Your task to perform on an android device: turn off priority inbox in the gmail app Image 0: 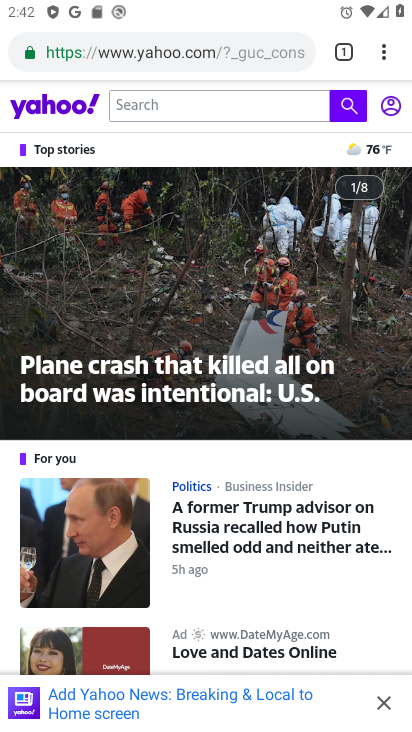
Step 0: press home button
Your task to perform on an android device: turn off priority inbox in the gmail app Image 1: 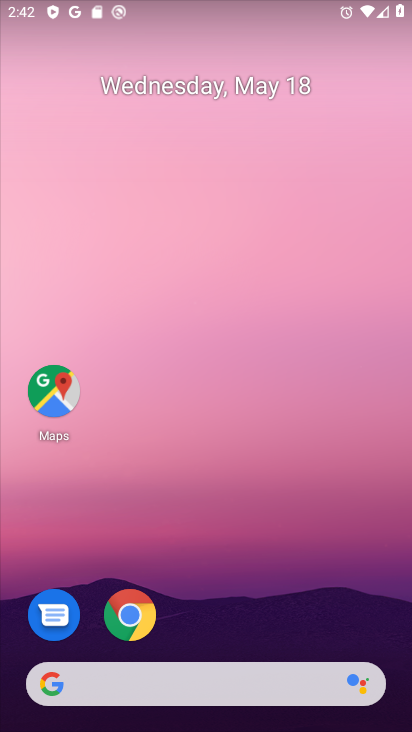
Step 1: drag from (215, 600) to (223, 286)
Your task to perform on an android device: turn off priority inbox in the gmail app Image 2: 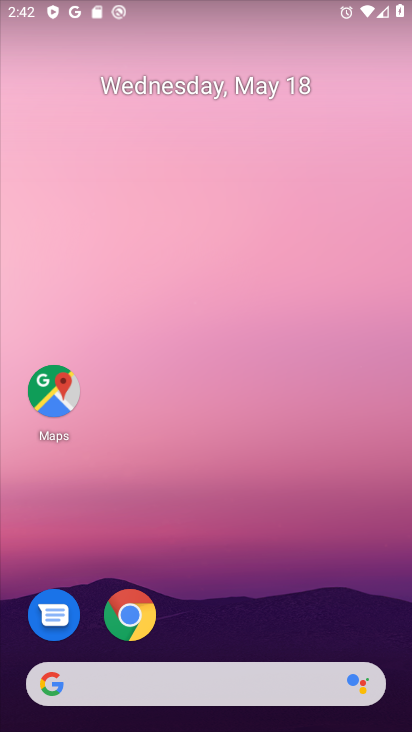
Step 2: drag from (252, 249) to (265, 209)
Your task to perform on an android device: turn off priority inbox in the gmail app Image 3: 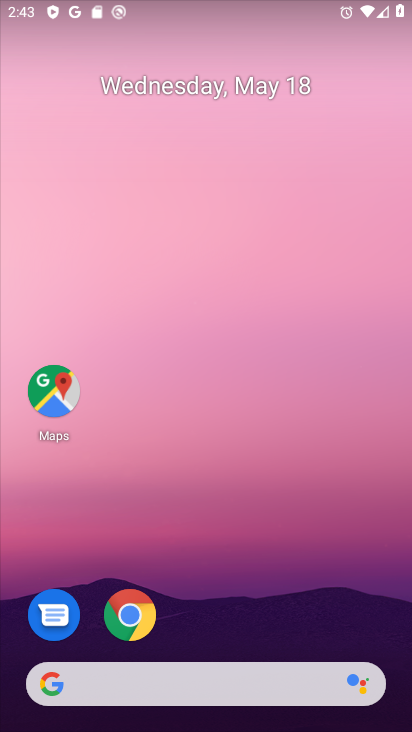
Step 3: drag from (185, 493) to (259, 220)
Your task to perform on an android device: turn off priority inbox in the gmail app Image 4: 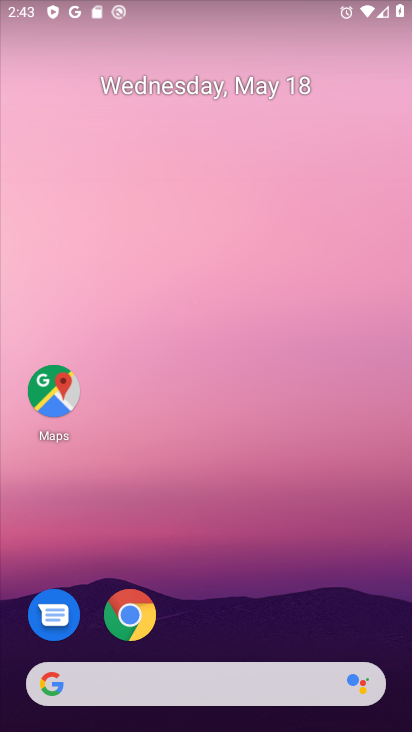
Step 4: drag from (214, 516) to (287, 312)
Your task to perform on an android device: turn off priority inbox in the gmail app Image 5: 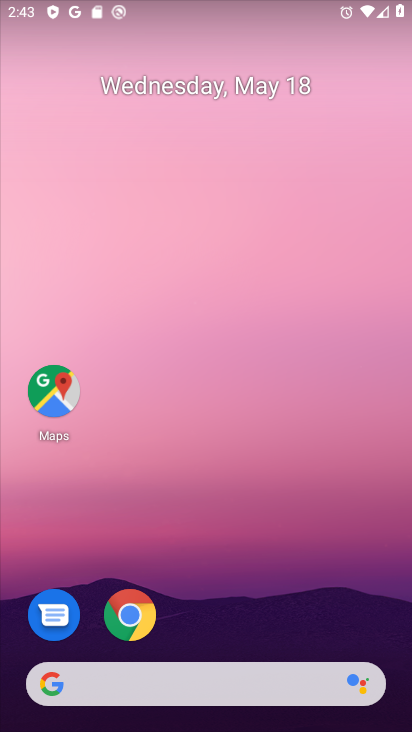
Step 5: drag from (212, 605) to (218, 360)
Your task to perform on an android device: turn off priority inbox in the gmail app Image 6: 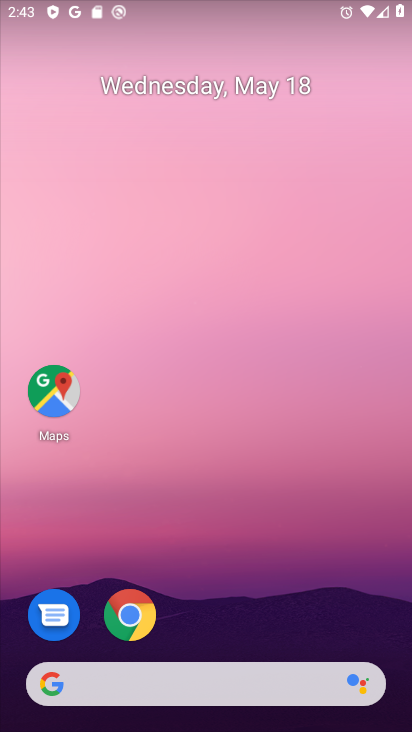
Step 6: drag from (210, 617) to (279, 323)
Your task to perform on an android device: turn off priority inbox in the gmail app Image 7: 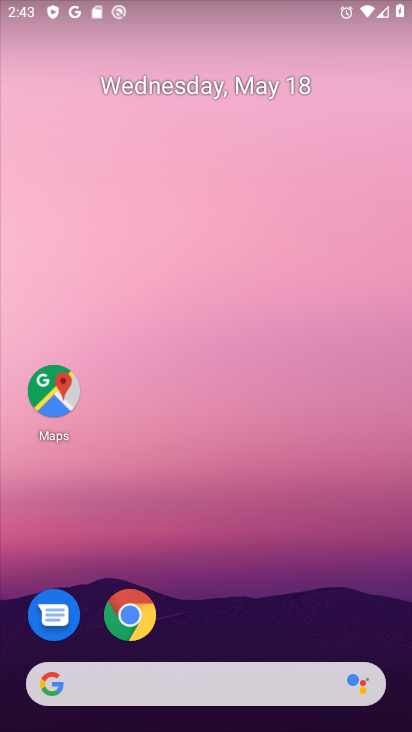
Step 7: drag from (198, 488) to (211, 413)
Your task to perform on an android device: turn off priority inbox in the gmail app Image 8: 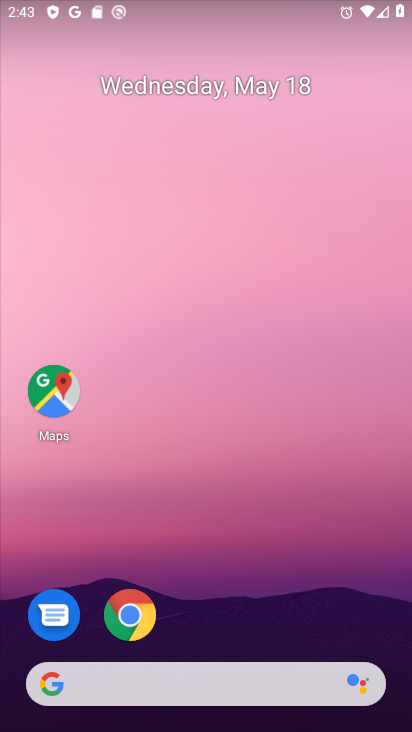
Step 8: drag from (183, 621) to (211, 301)
Your task to perform on an android device: turn off priority inbox in the gmail app Image 9: 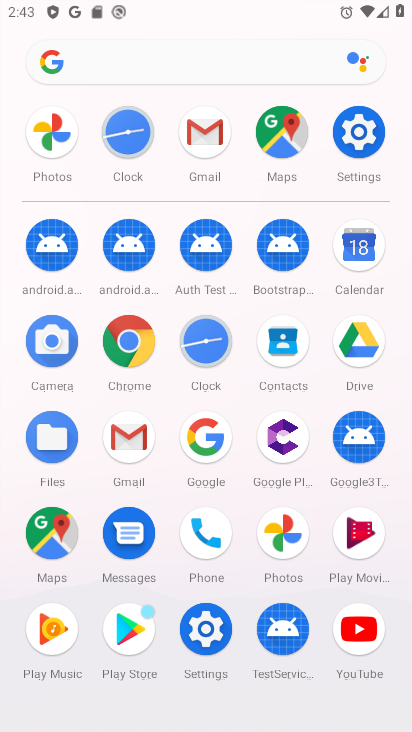
Step 9: click (203, 135)
Your task to perform on an android device: turn off priority inbox in the gmail app Image 10: 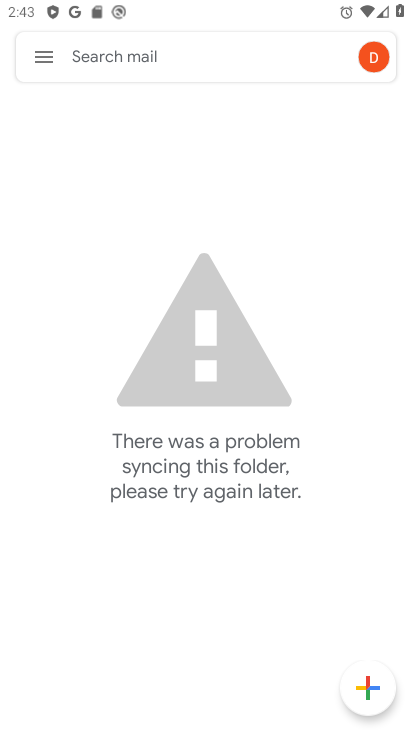
Step 10: click (43, 65)
Your task to perform on an android device: turn off priority inbox in the gmail app Image 11: 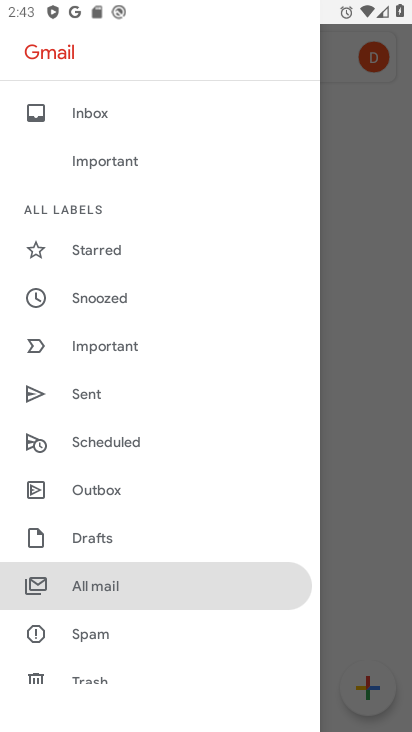
Step 11: drag from (106, 648) to (122, 426)
Your task to perform on an android device: turn off priority inbox in the gmail app Image 12: 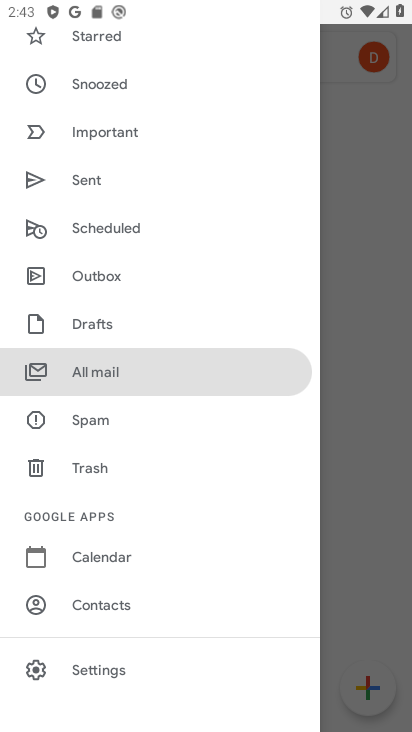
Step 12: click (105, 676)
Your task to perform on an android device: turn off priority inbox in the gmail app Image 13: 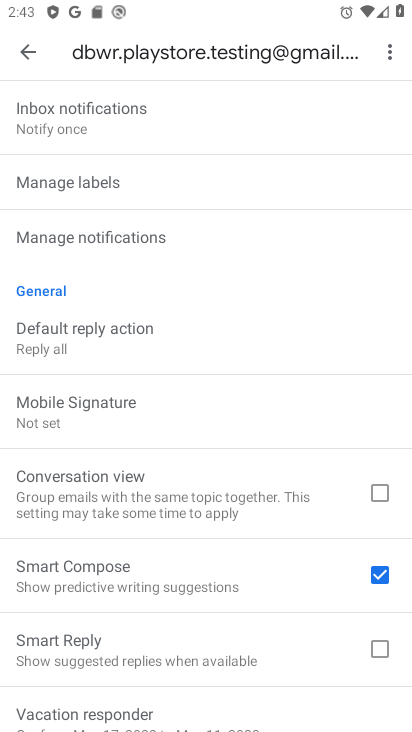
Step 13: drag from (208, 122) to (242, 517)
Your task to perform on an android device: turn off priority inbox in the gmail app Image 14: 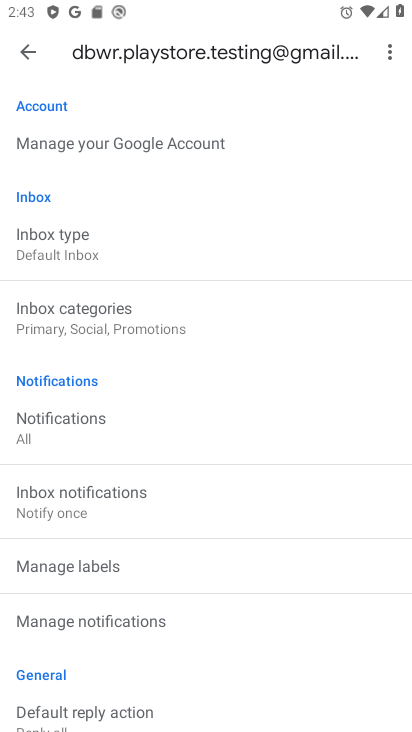
Step 14: click (79, 252)
Your task to perform on an android device: turn off priority inbox in the gmail app Image 15: 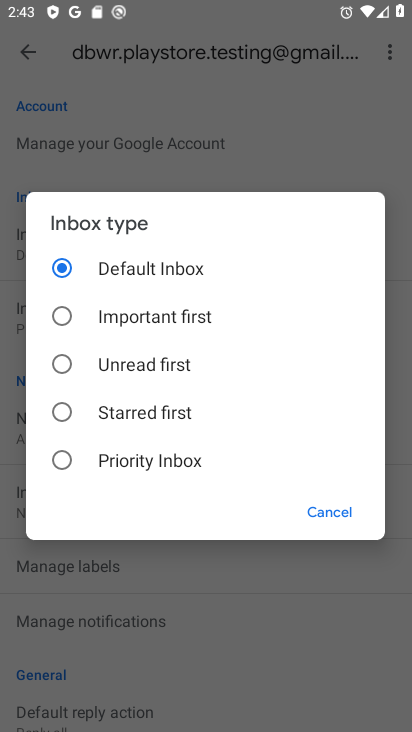
Step 15: click (144, 465)
Your task to perform on an android device: turn off priority inbox in the gmail app Image 16: 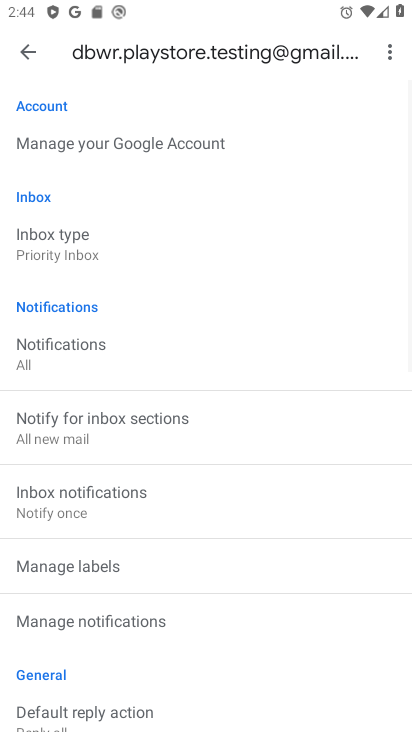
Step 16: click (67, 240)
Your task to perform on an android device: turn off priority inbox in the gmail app Image 17: 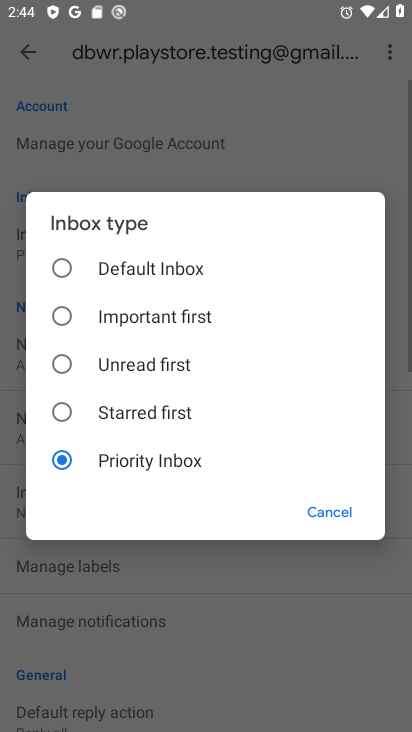
Step 17: click (149, 272)
Your task to perform on an android device: turn off priority inbox in the gmail app Image 18: 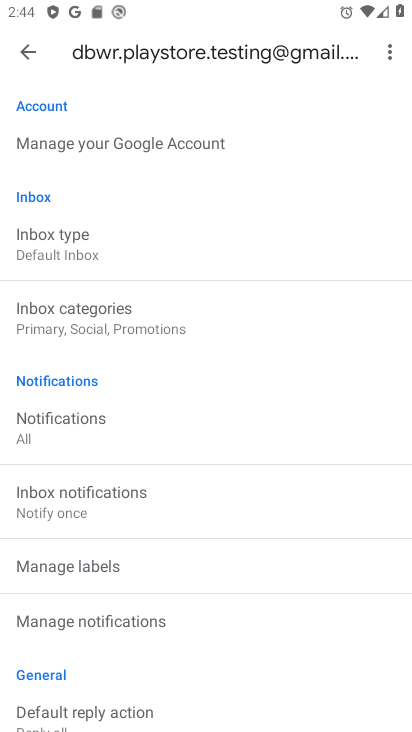
Step 18: task complete